Your task to perform on an android device: install app "YouTube Kids" Image 0: 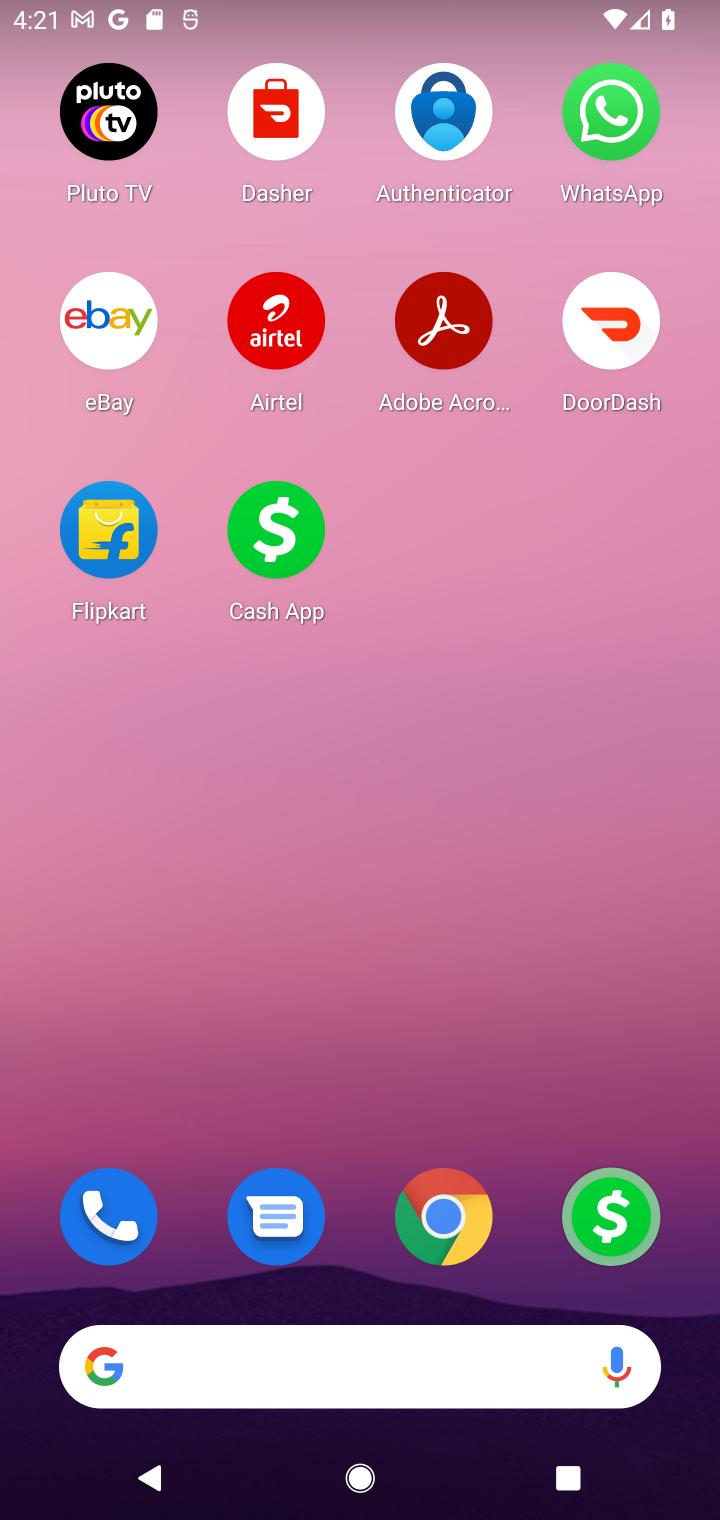
Step 0: drag from (408, 1062) to (511, 205)
Your task to perform on an android device: install app "YouTube Kids" Image 1: 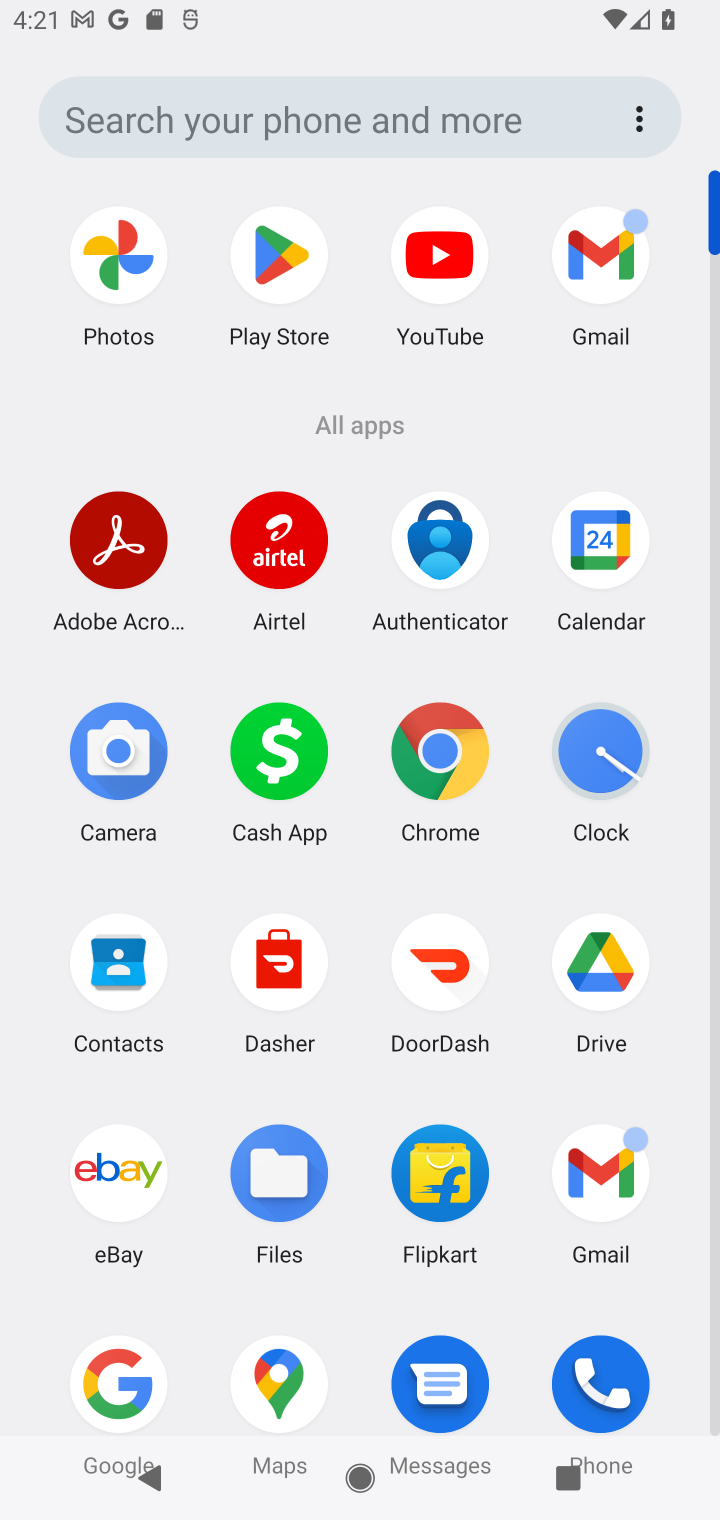
Step 1: click (315, 266)
Your task to perform on an android device: install app "YouTube Kids" Image 2: 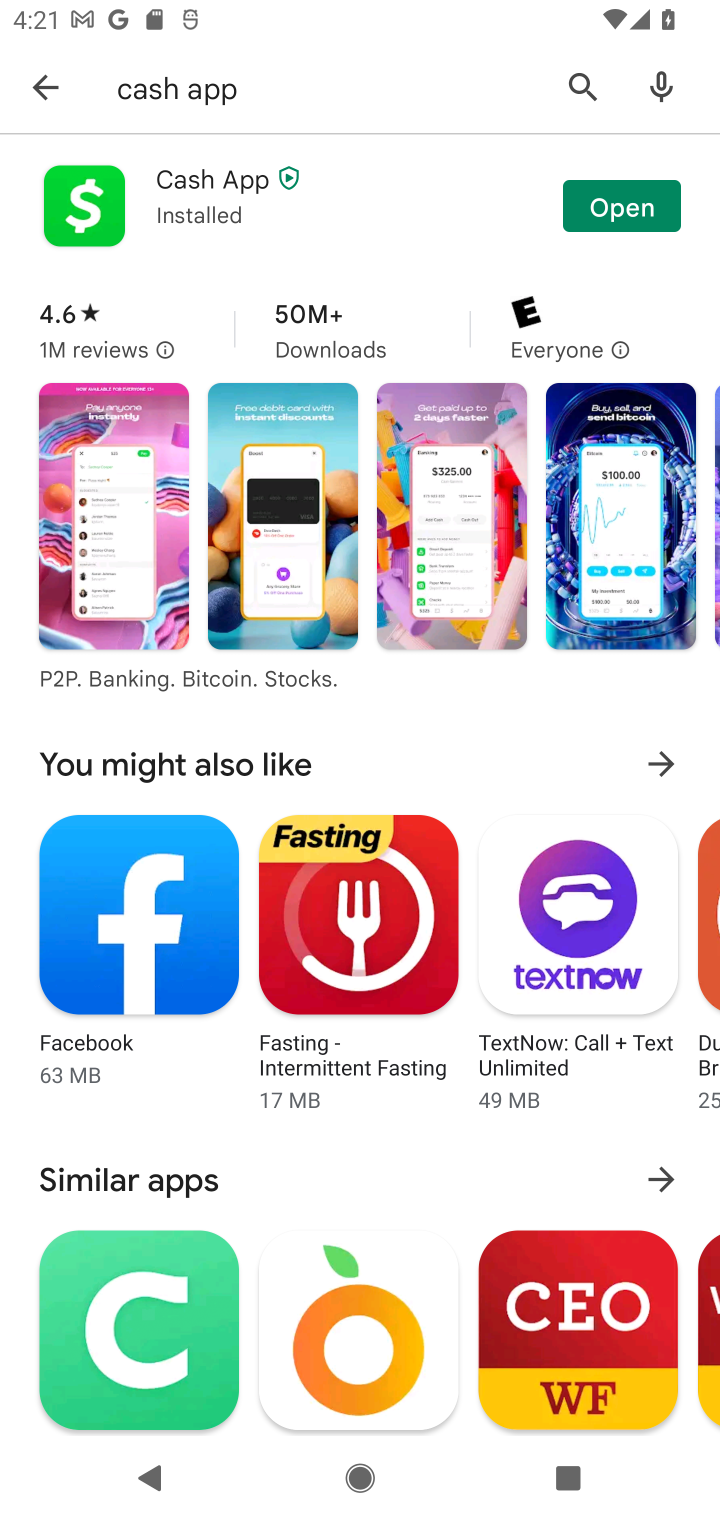
Step 2: click (572, 88)
Your task to perform on an android device: install app "YouTube Kids" Image 3: 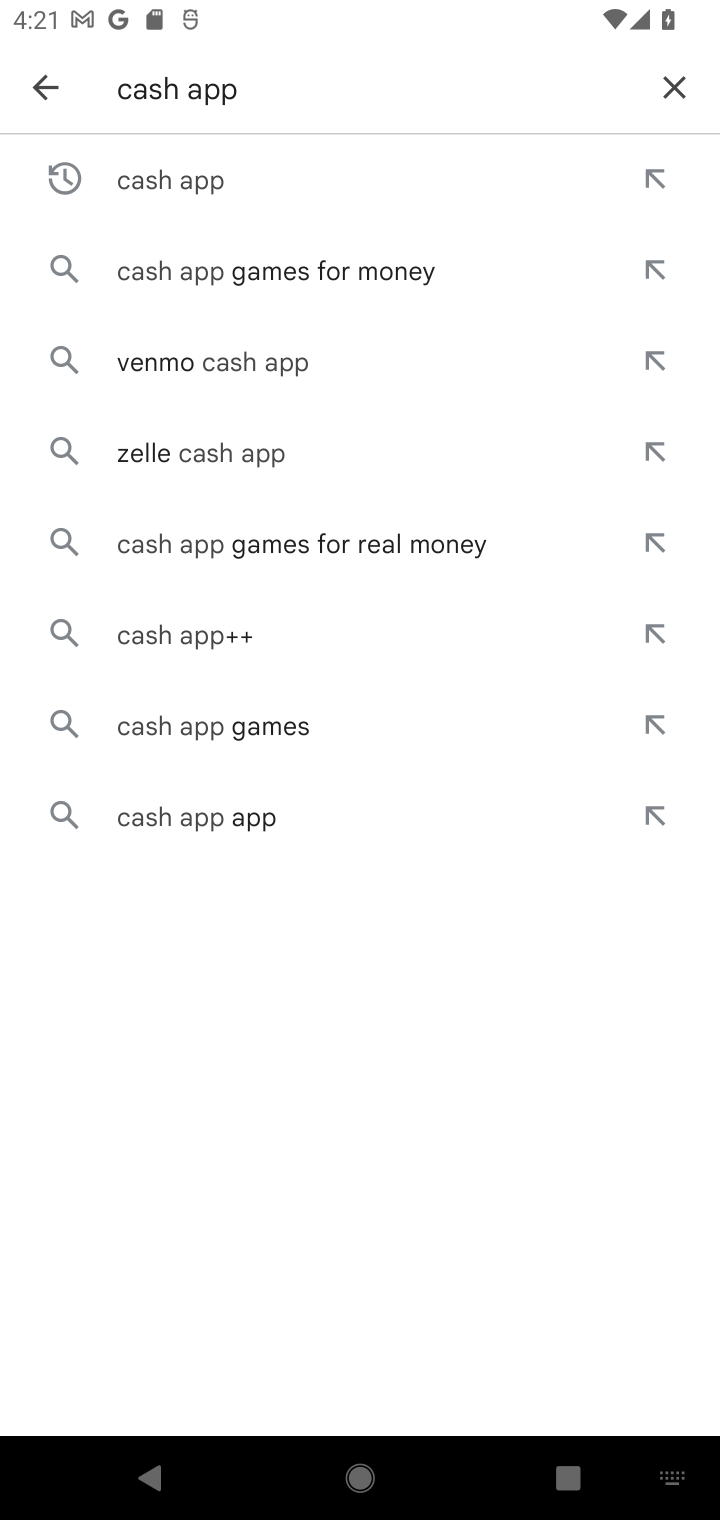
Step 3: click (674, 76)
Your task to perform on an android device: install app "YouTube Kids" Image 4: 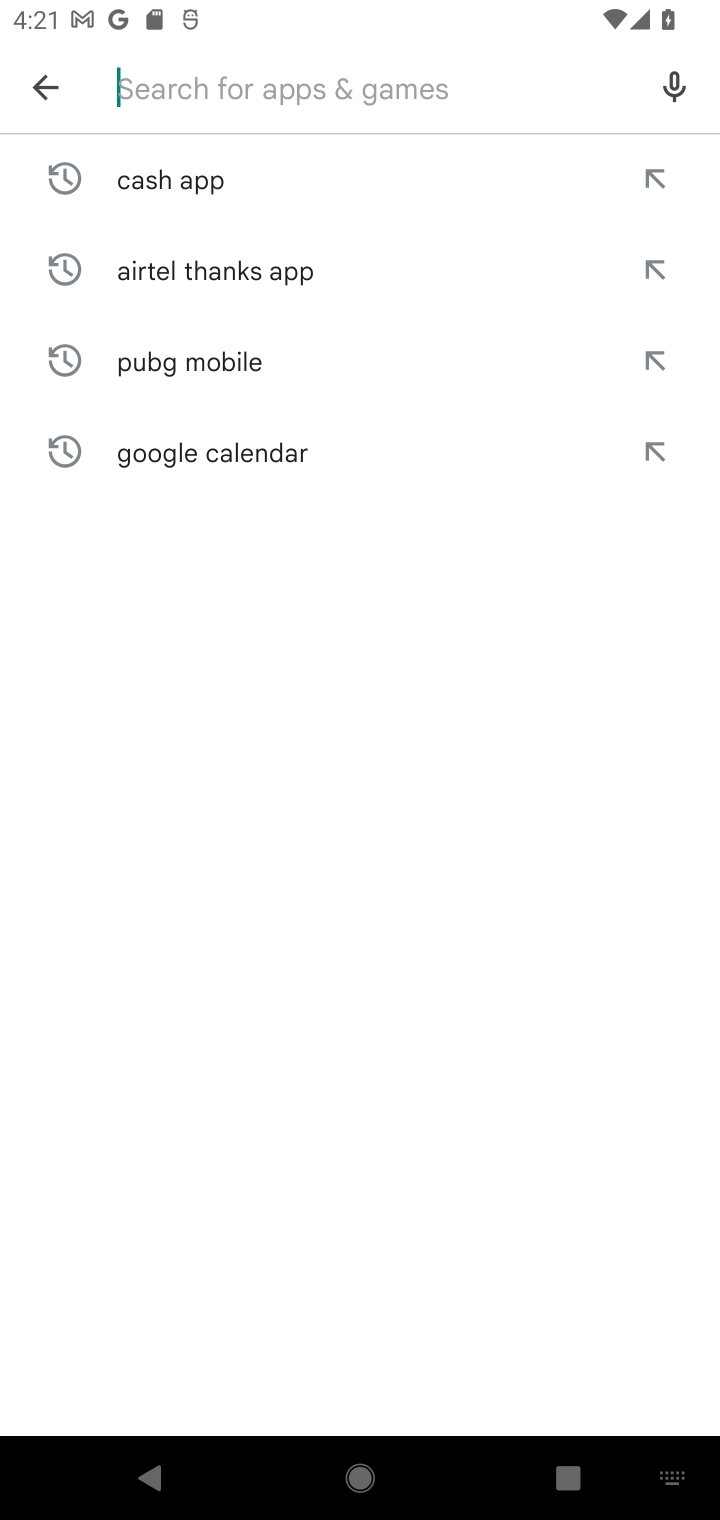
Step 4: type "YouTube Kids"
Your task to perform on an android device: install app "YouTube Kids" Image 5: 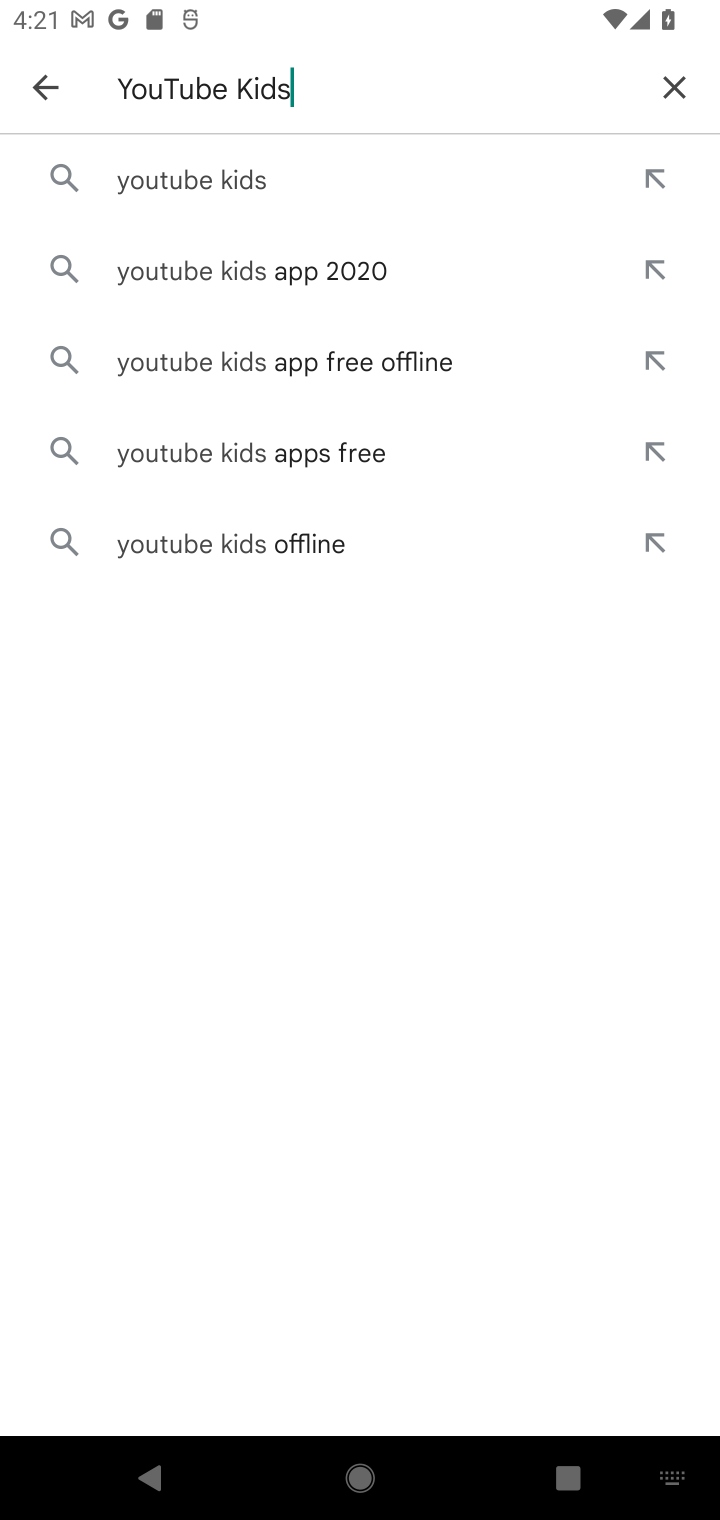
Step 5: click (252, 197)
Your task to perform on an android device: install app "YouTube Kids" Image 6: 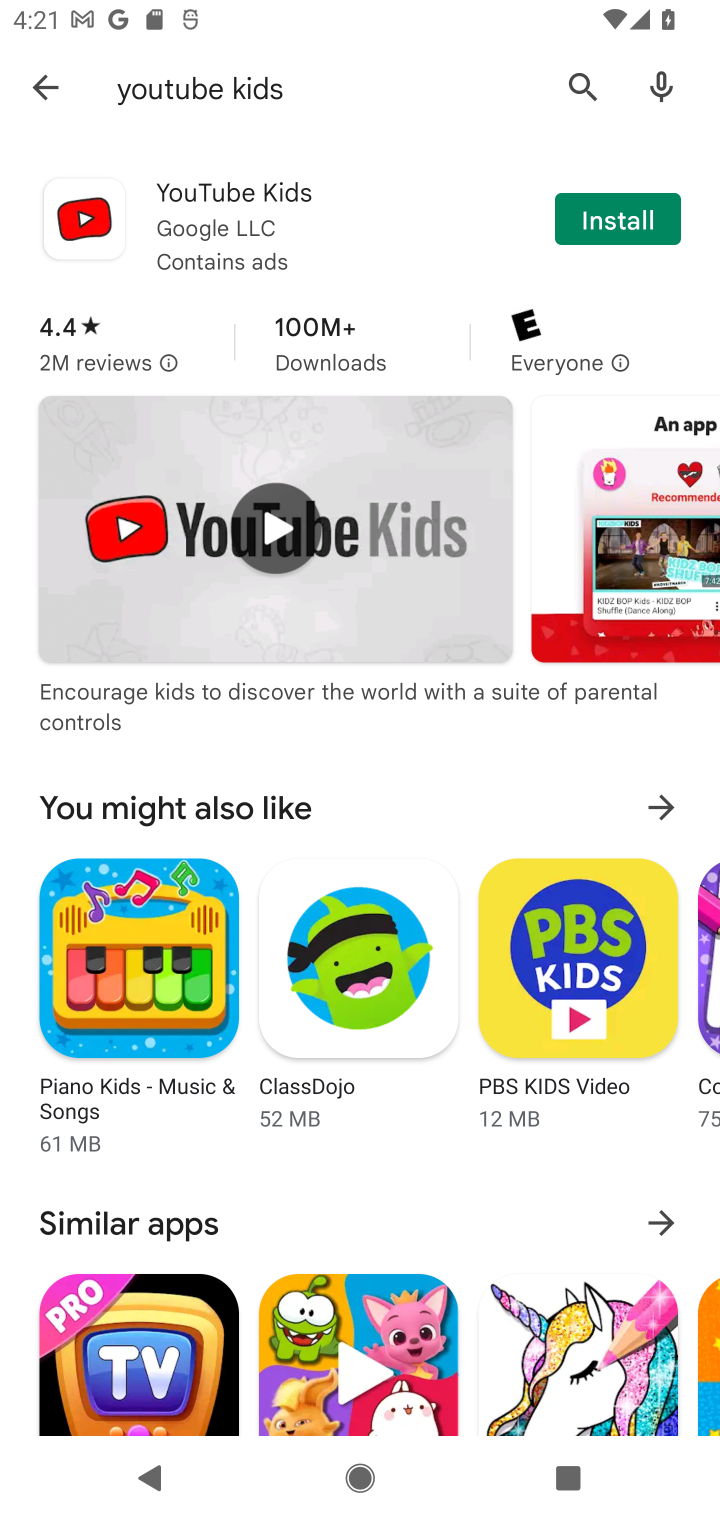
Step 6: click (628, 215)
Your task to perform on an android device: install app "YouTube Kids" Image 7: 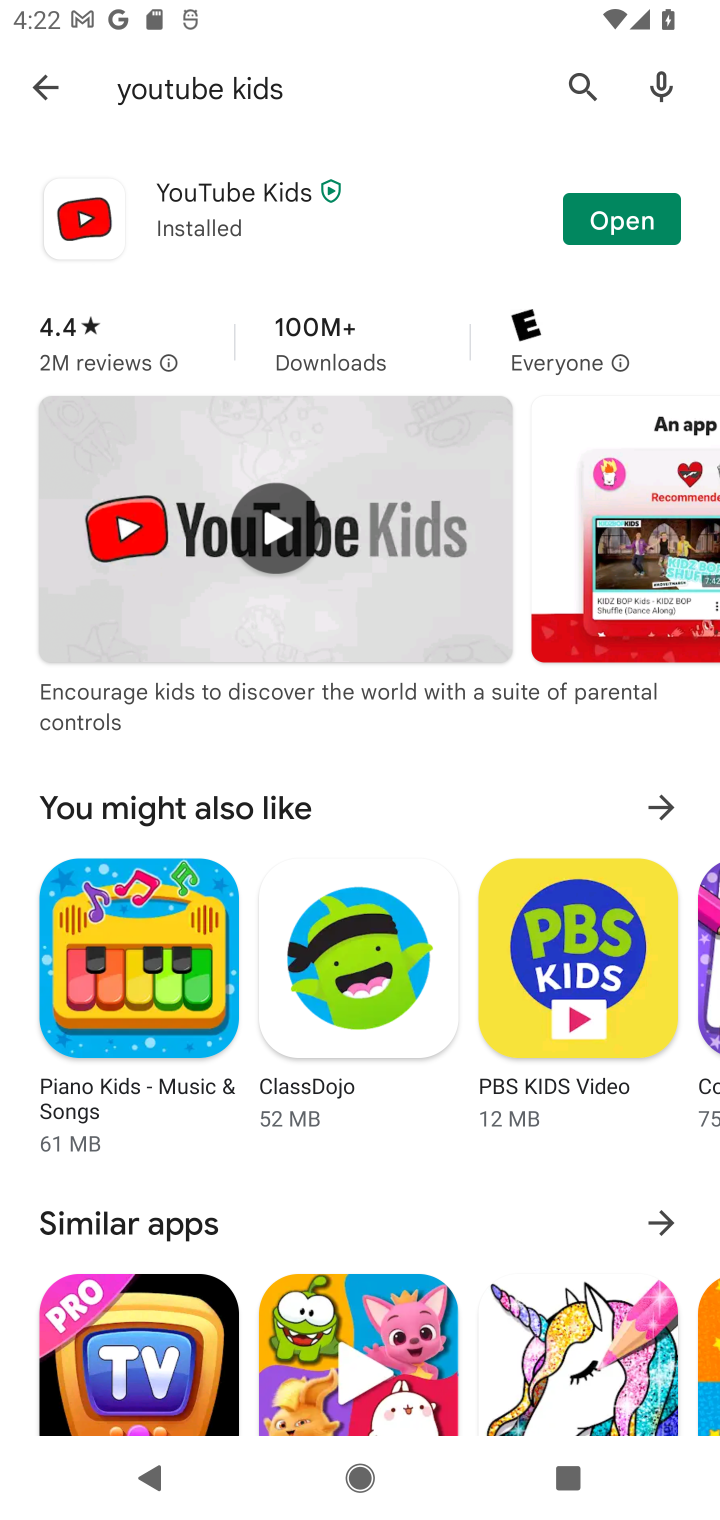
Step 7: task complete